Your task to perform on an android device: Open the stopwatch Image 0: 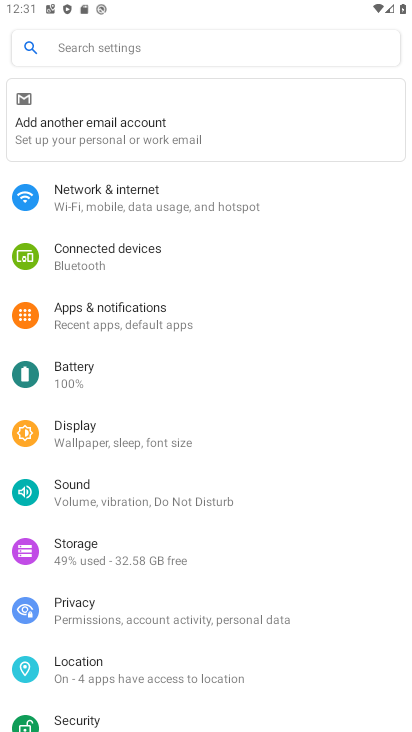
Step 0: press home button
Your task to perform on an android device: Open the stopwatch Image 1: 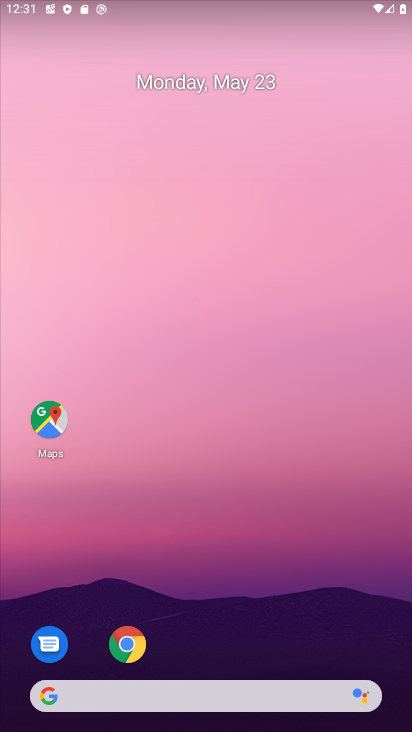
Step 1: drag from (300, 601) to (314, 67)
Your task to perform on an android device: Open the stopwatch Image 2: 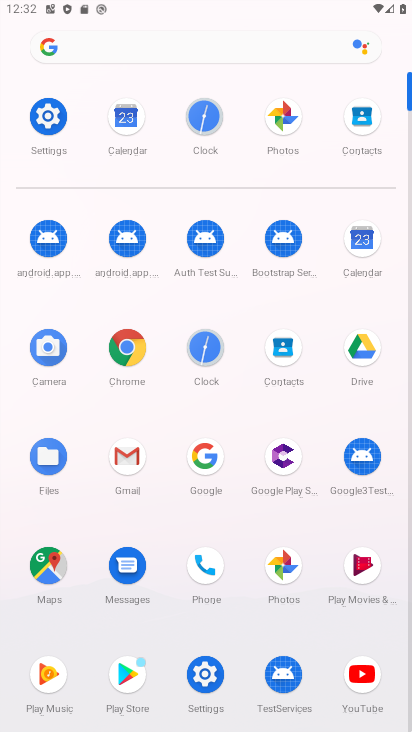
Step 2: click (214, 109)
Your task to perform on an android device: Open the stopwatch Image 3: 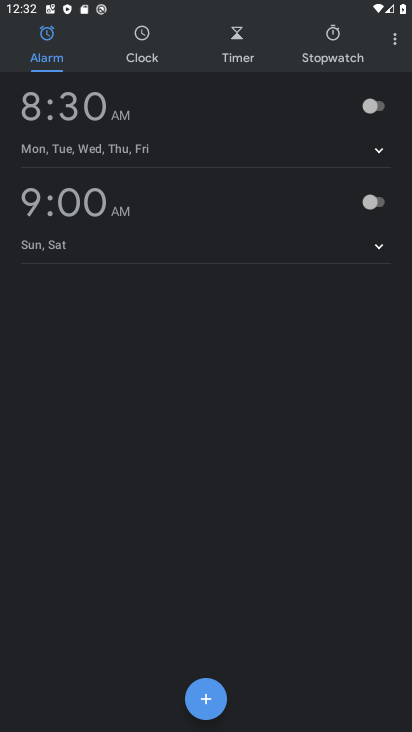
Step 3: click (328, 51)
Your task to perform on an android device: Open the stopwatch Image 4: 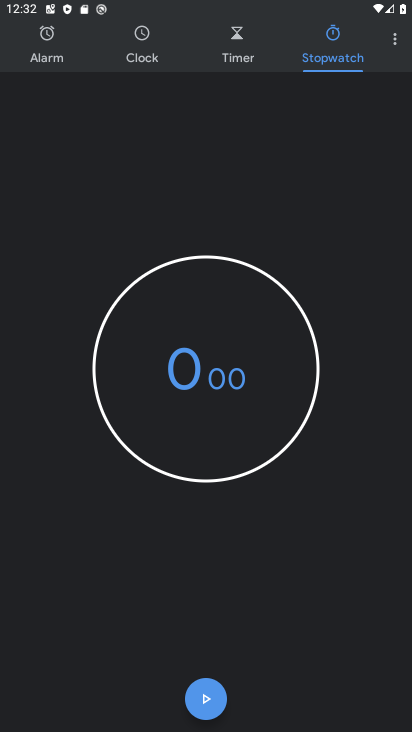
Step 4: click (208, 700)
Your task to perform on an android device: Open the stopwatch Image 5: 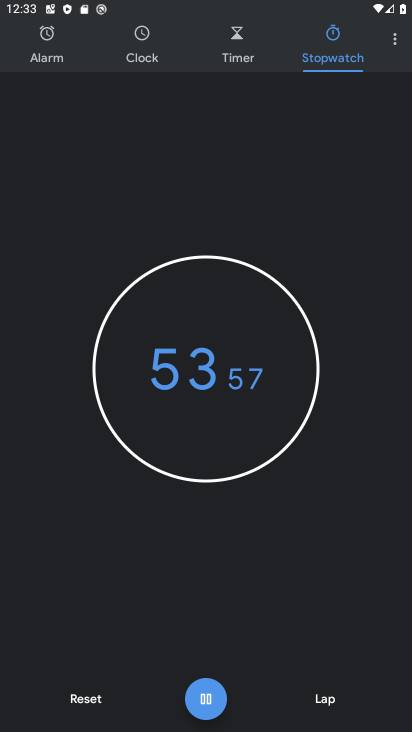
Step 5: task complete